Your task to perform on an android device: open chrome privacy settings Image 0: 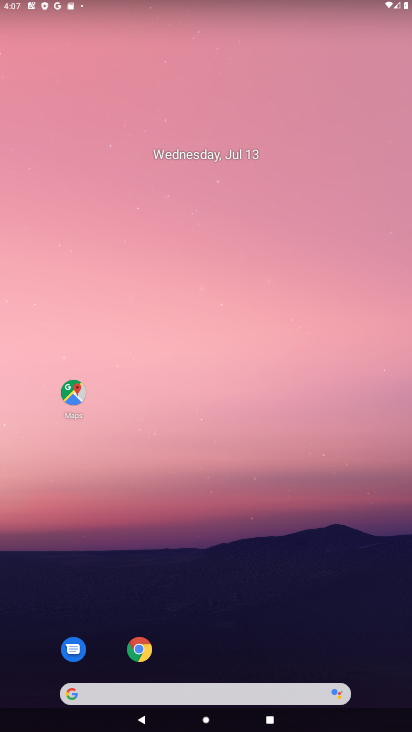
Step 0: drag from (256, 365) to (178, 54)
Your task to perform on an android device: open chrome privacy settings Image 1: 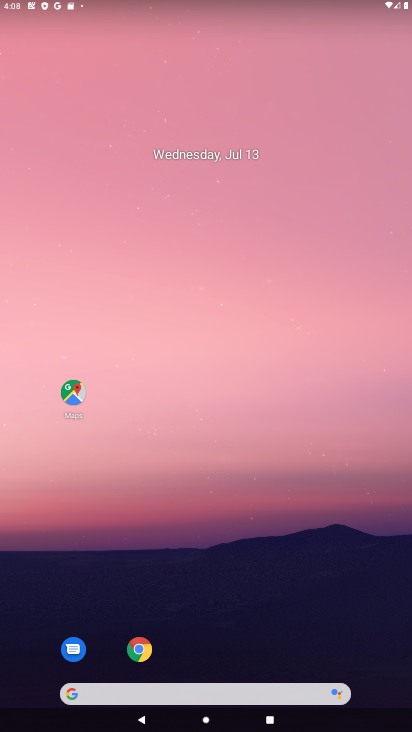
Step 1: drag from (307, 627) to (187, 222)
Your task to perform on an android device: open chrome privacy settings Image 2: 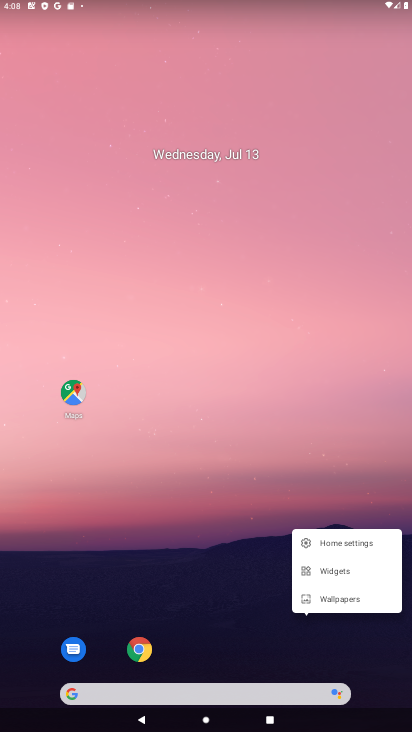
Step 2: click (136, 659)
Your task to perform on an android device: open chrome privacy settings Image 3: 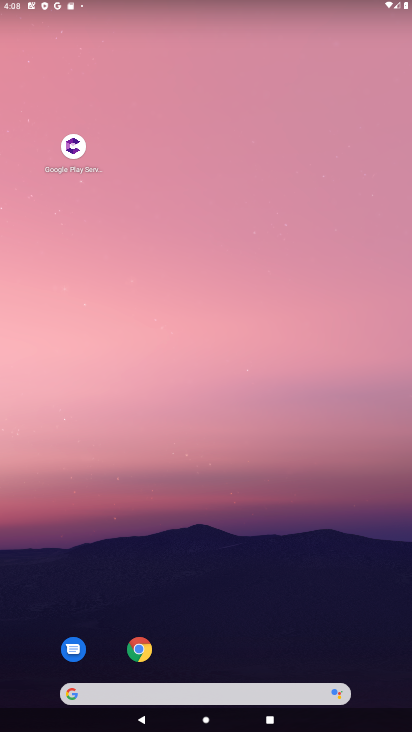
Step 3: click (140, 653)
Your task to perform on an android device: open chrome privacy settings Image 4: 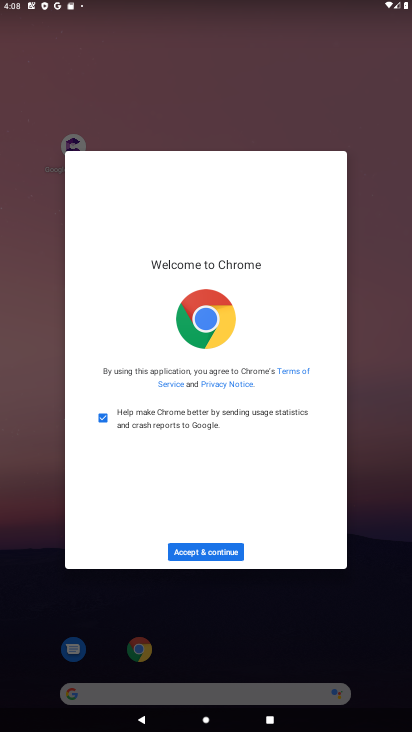
Step 4: click (224, 550)
Your task to perform on an android device: open chrome privacy settings Image 5: 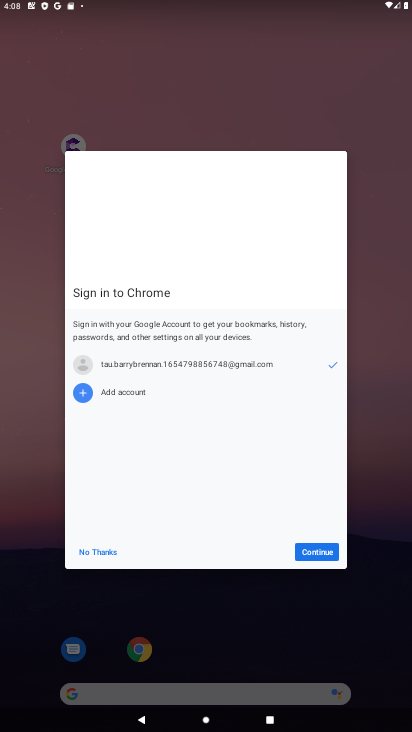
Step 5: click (312, 552)
Your task to perform on an android device: open chrome privacy settings Image 6: 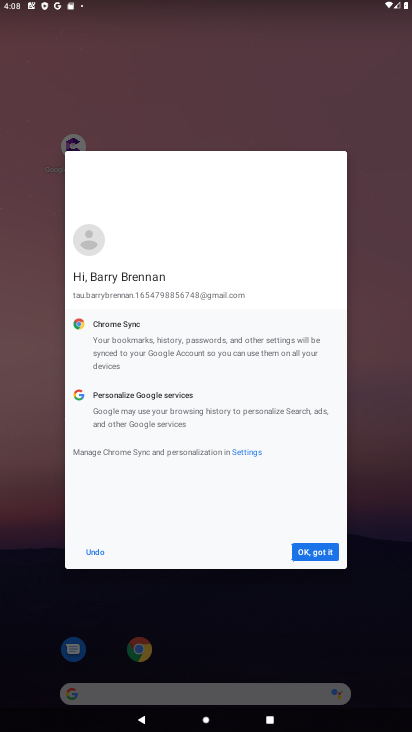
Step 6: click (308, 551)
Your task to perform on an android device: open chrome privacy settings Image 7: 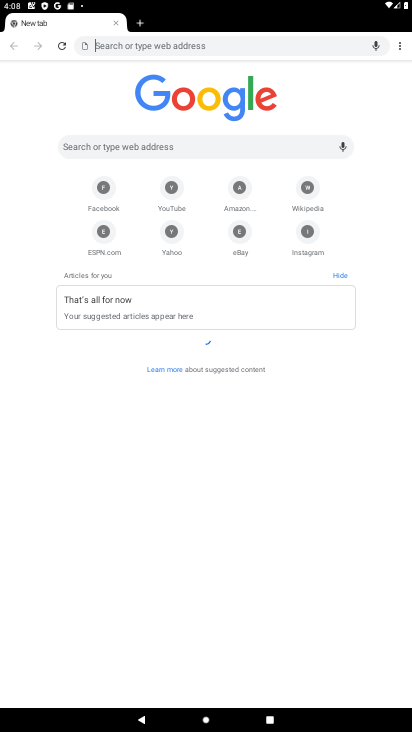
Step 7: click (401, 43)
Your task to perform on an android device: open chrome privacy settings Image 8: 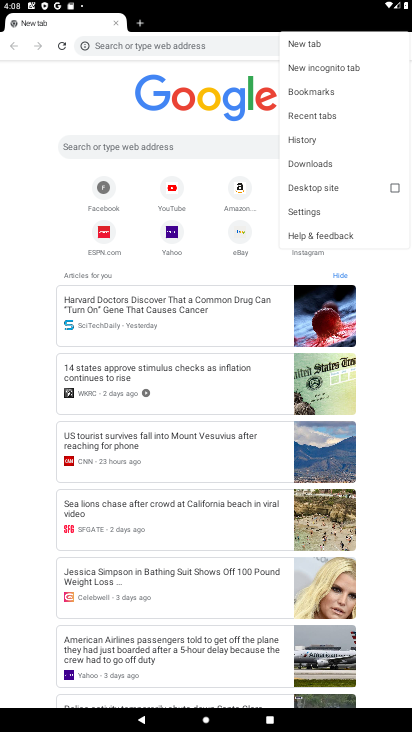
Step 8: click (309, 207)
Your task to perform on an android device: open chrome privacy settings Image 9: 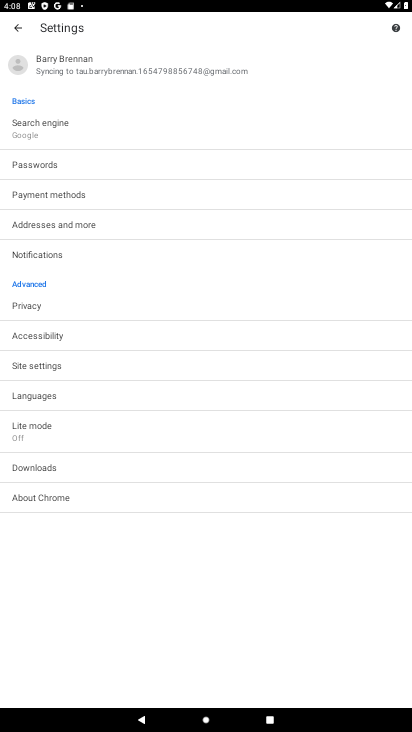
Step 9: click (111, 300)
Your task to perform on an android device: open chrome privacy settings Image 10: 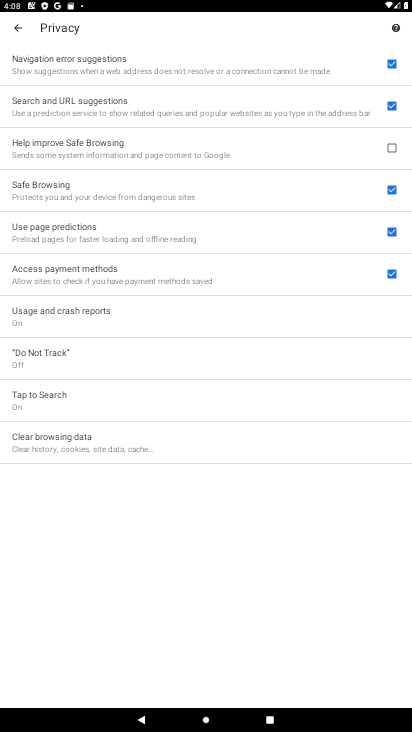
Step 10: task complete